Your task to perform on an android device: Check the weather Image 0: 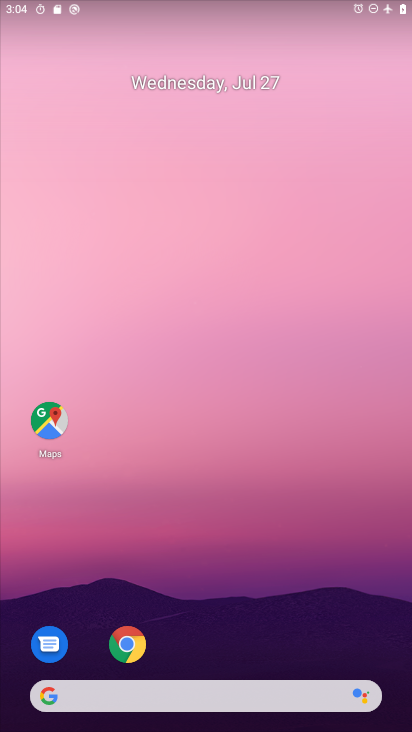
Step 0: drag from (173, 662) to (223, 306)
Your task to perform on an android device: Check the weather Image 1: 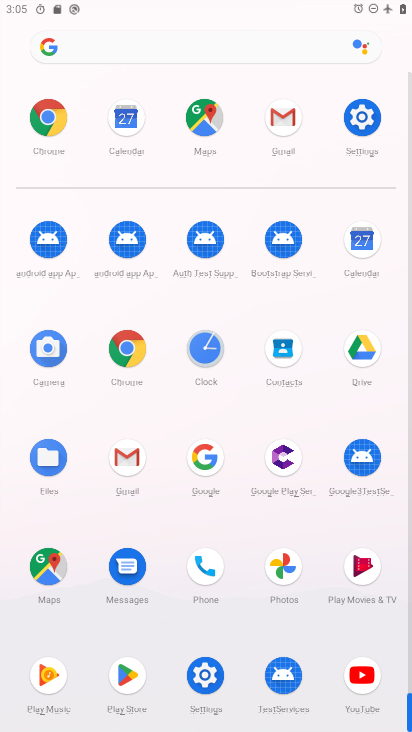
Step 1: click (128, 42)
Your task to perform on an android device: Check the weather Image 2: 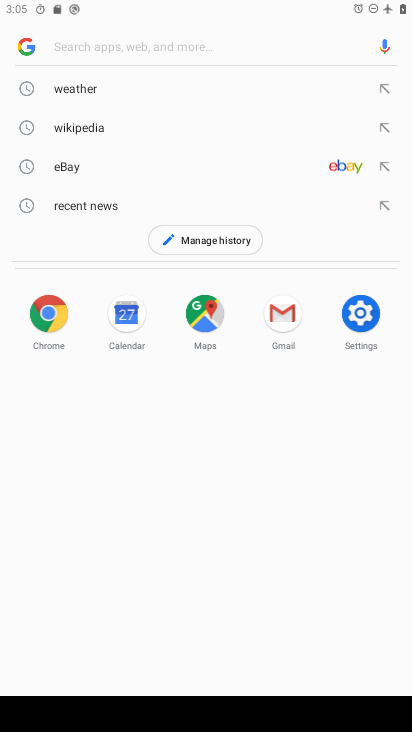
Step 2: click (89, 89)
Your task to perform on an android device: Check the weather Image 3: 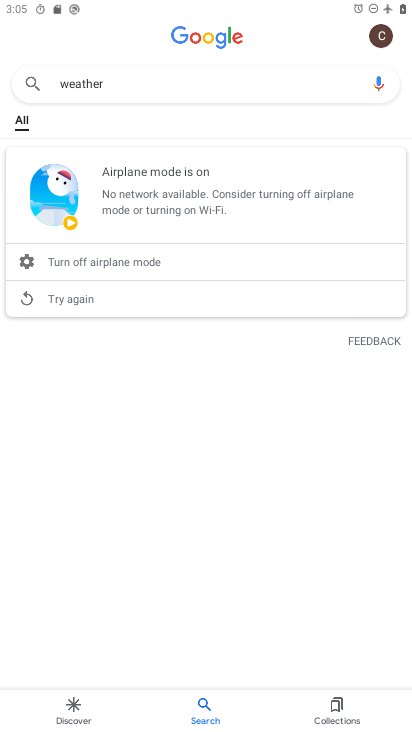
Step 3: task complete